Your task to perform on an android device: open a bookmark in the chrome app Image 0: 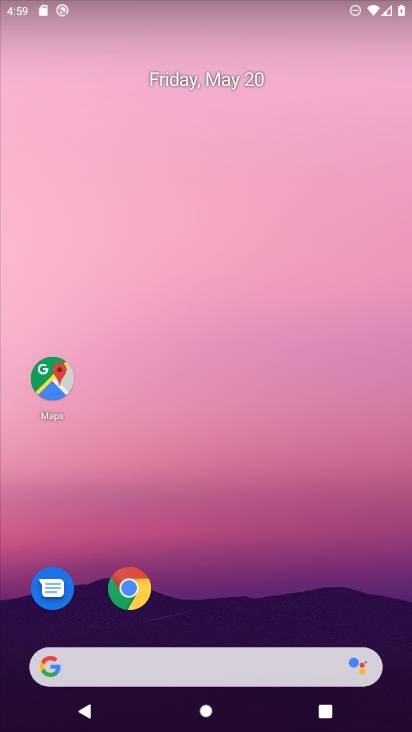
Step 0: click (124, 590)
Your task to perform on an android device: open a bookmark in the chrome app Image 1: 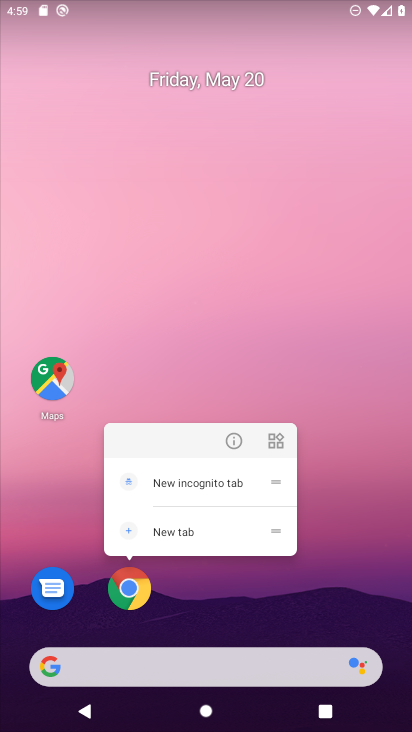
Step 1: click (129, 591)
Your task to perform on an android device: open a bookmark in the chrome app Image 2: 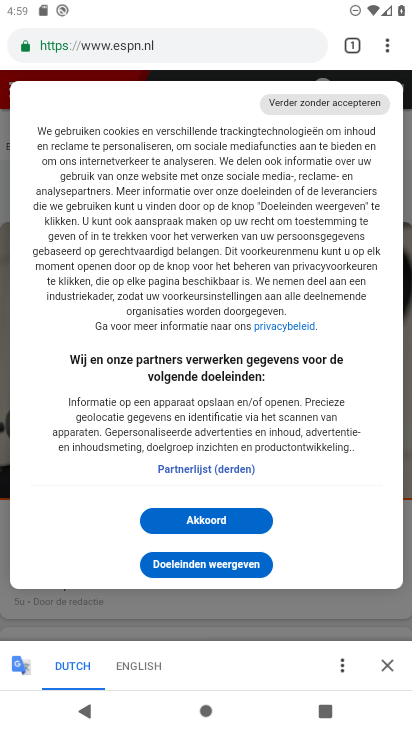
Step 2: press home button
Your task to perform on an android device: open a bookmark in the chrome app Image 3: 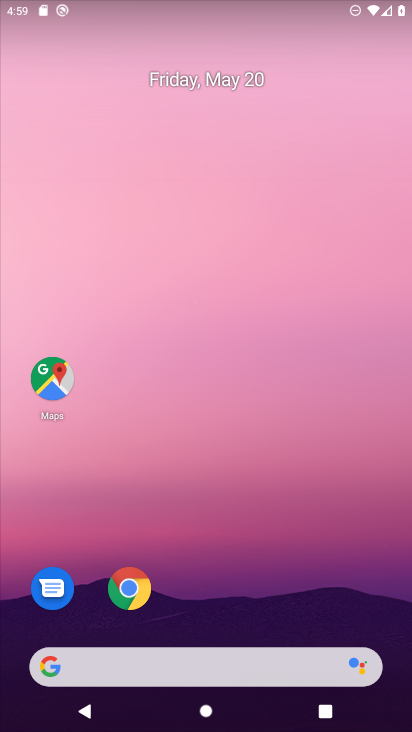
Step 3: click (142, 607)
Your task to perform on an android device: open a bookmark in the chrome app Image 4: 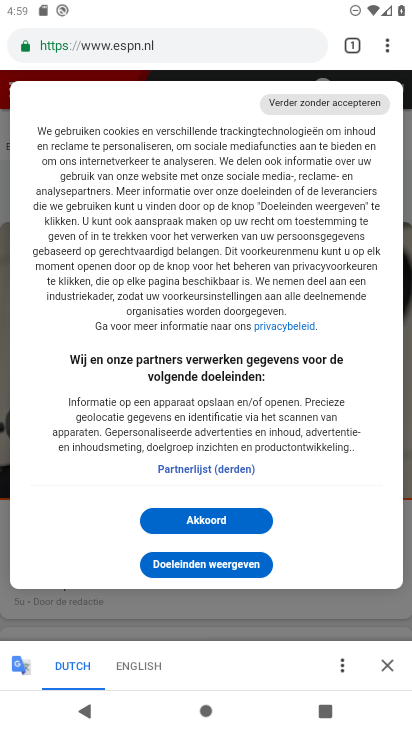
Step 4: click (392, 47)
Your task to perform on an android device: open a bookmark in the chrome app Image 5: 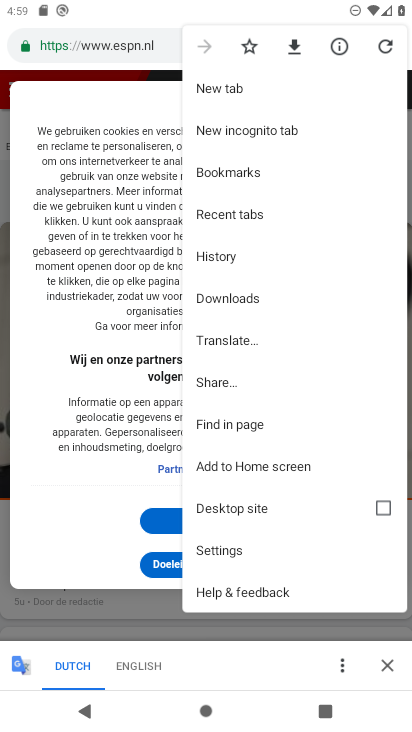
Step 5: click (225, 170)
Your task to perform on an android device: open a bookmark in the chrome app Image 6: 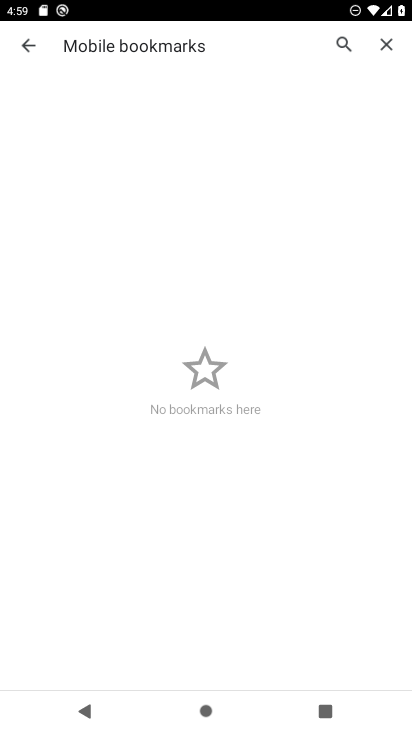
Step 6: task complete